Your task to perform on an android device: Go to calendar. Show me events next week Image 0: 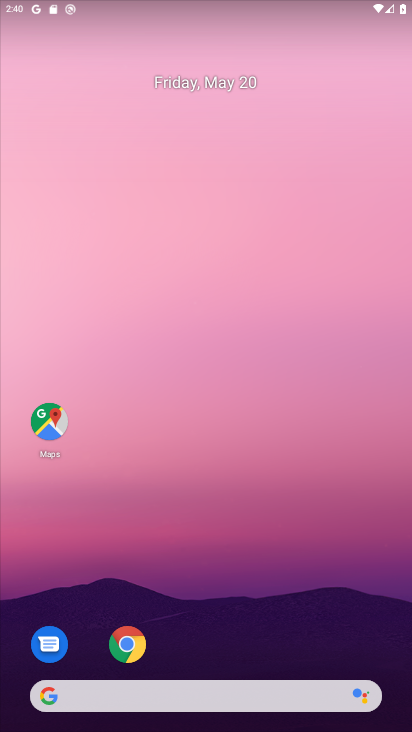
Step 0: drag from (229, 658) to (245, 175)
Your task to perform on an android device: Go to calendar. Show me events next week Image 1: 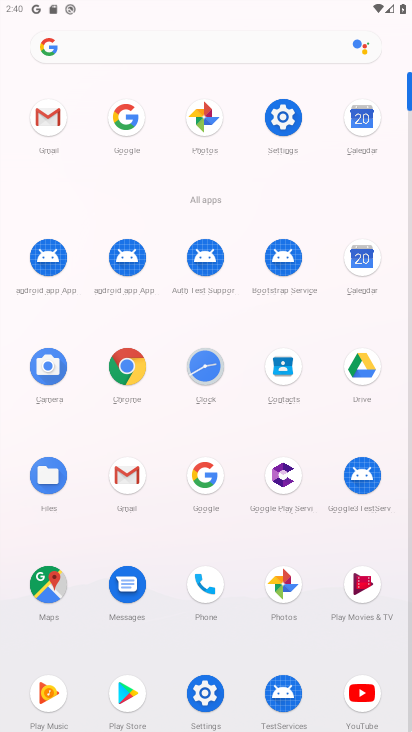
Step 1: click (366, 261)
Your task to perform on an android device: Go to calendar. Show me events next week Image 2: 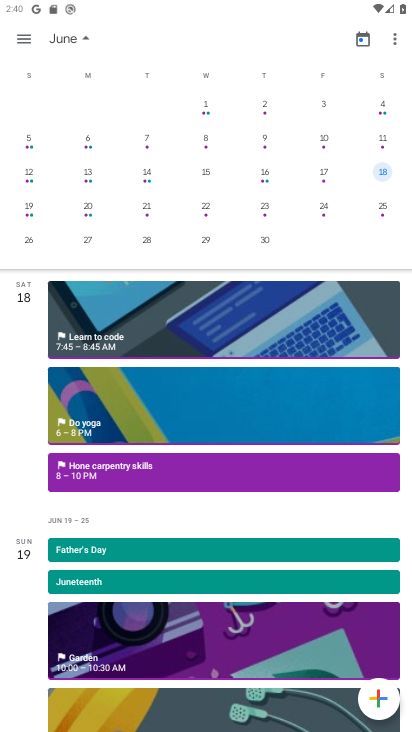
Step 2: drag from (102, 172) to (402, 167)
Your task to perform on an android device: Go to calendar. Show me events next week Image 3: 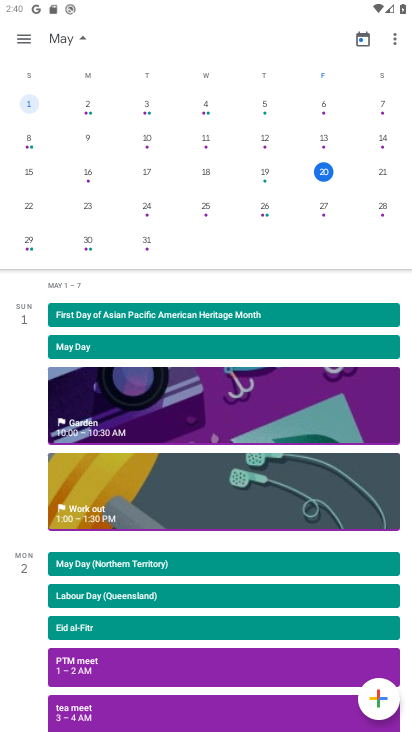
Step 3: click (26, 208)
Your task to perform on an android device: Go to calendar. Show me events next week Image 4: 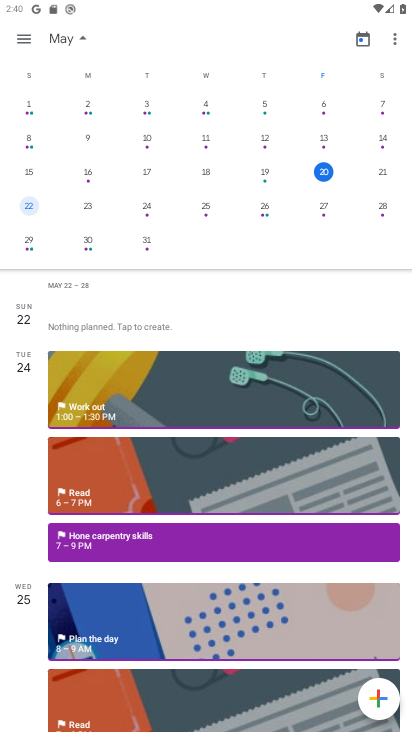
Step 4: click (85, 213)
Your task to perform on an android device: Go to calendar. Show me events next week Image 5: 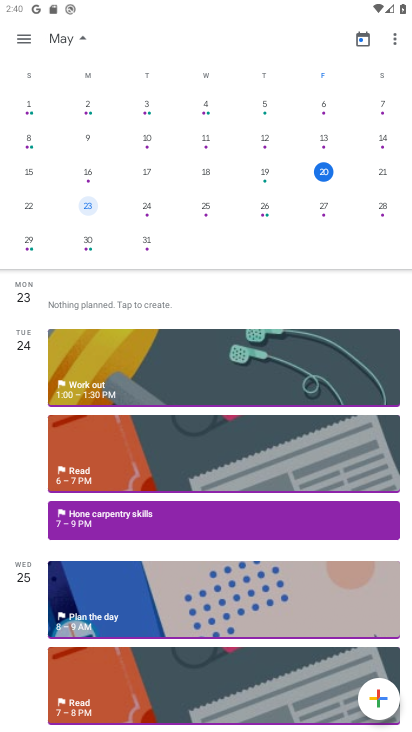
Step 5: click (142, 214)
Your task to perform on an android device: Go to calendar. Show me events next week Image 6: 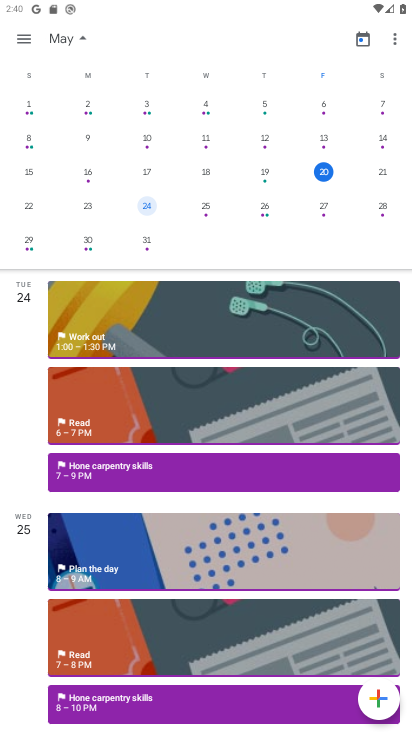
Step 6: click (203, 219)
Your task to perform on an android device: Go to calendar. Show me events next week Image 7: 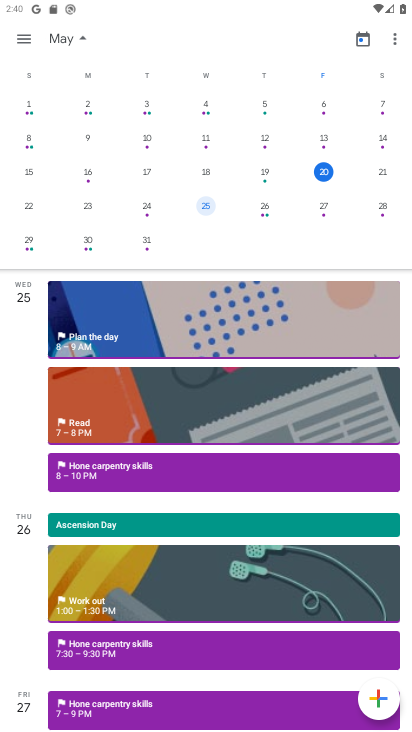
Step 7: click (269, 212)
Your task to perform on an android device: Go to calendar. Show me events next week Image 8: 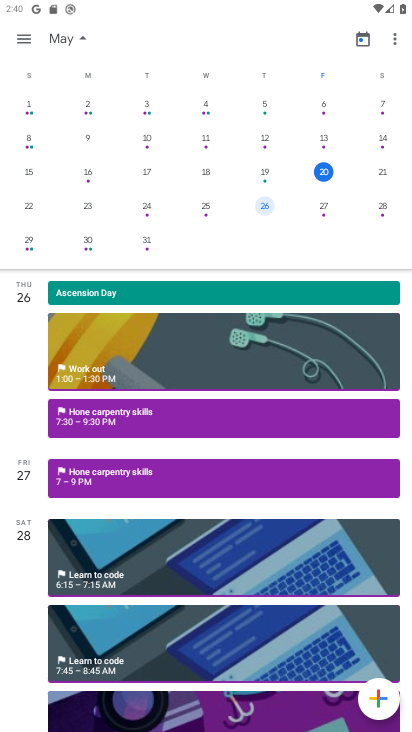
Step 8: click (319, 209)
Your task to perform on an android device: Go to calendar. Show me events next week Image 9: 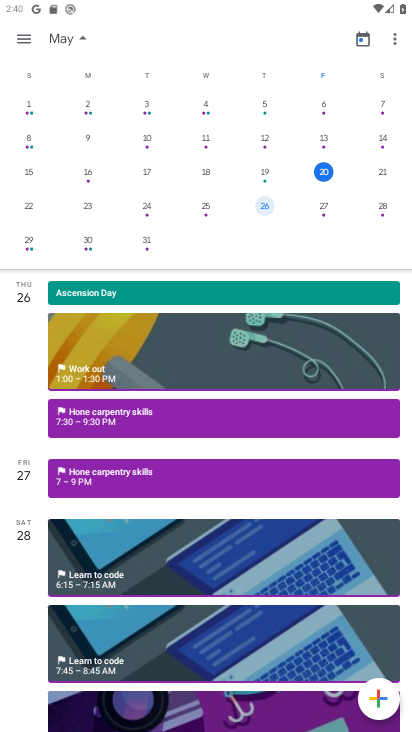
Step 9: click (385, 216)
Your task to perform on an android device: Go to calendar. Show me events next week Image 10: 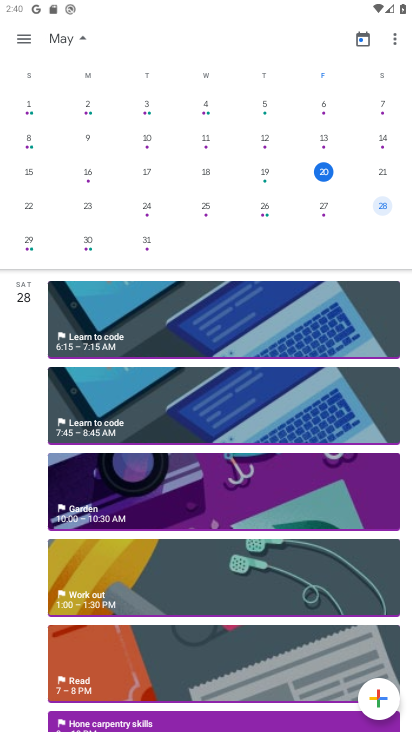
Step 10: task complete